Your task to perform on an android device: Open the calendar app, open the side menu, and click the "Day" option Image 0: 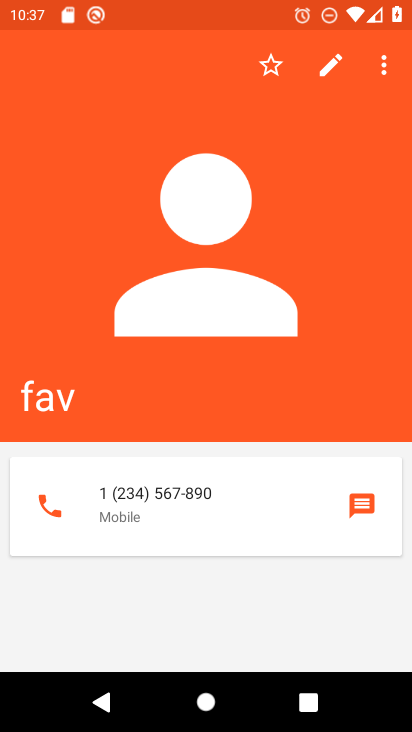
Step 0: press home button
Your task to perform on an android device: Open the calendar app, open the side menu, and click the "Day" option Image 1: 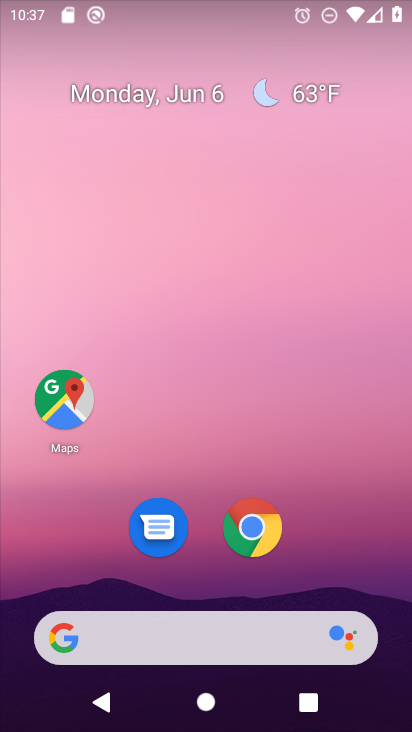
Step 1: drag from (343, 528) to (333, 149)
Your task to perform on an android device: Open the calendar app, open the side menu, and click the "Day" option Image 2: 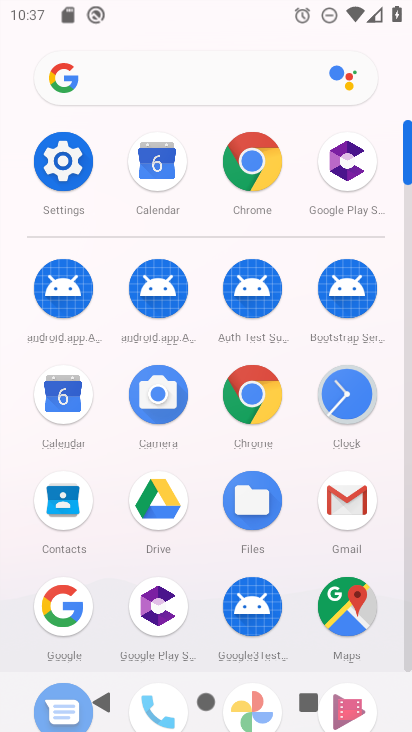
Step 2: click (77, 406)
Your task to perform on an android device: Open the calendar app, open the side menu, and click the "Day" option Image 3: 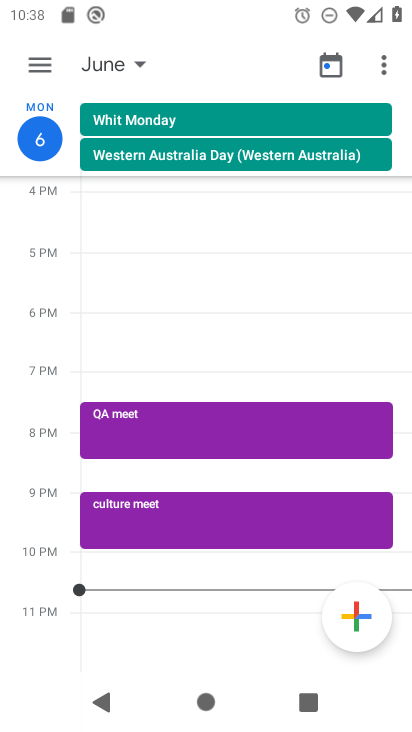
Step 3: click (40, 59)
Your task to perform on an android device: Open the calendar app, open the side menu, and click the "Day" option Image 4: 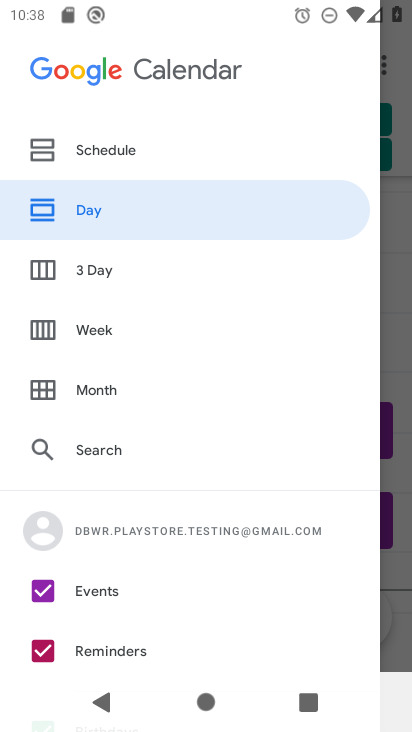
Step 4: task complete